Your task to perform on an android device: allow notifications from all sites in the chrome app Image 0: 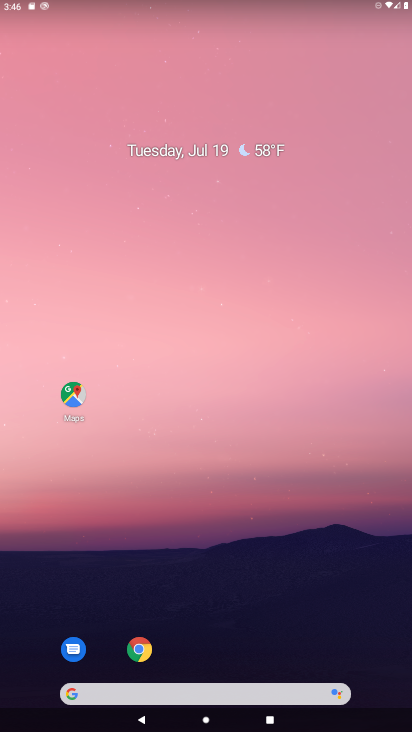
Step 0: drag from (230, 683) to (230, 209)
Your task to perform on an android device: allow notifications from all sites in the chrome app Image 1: 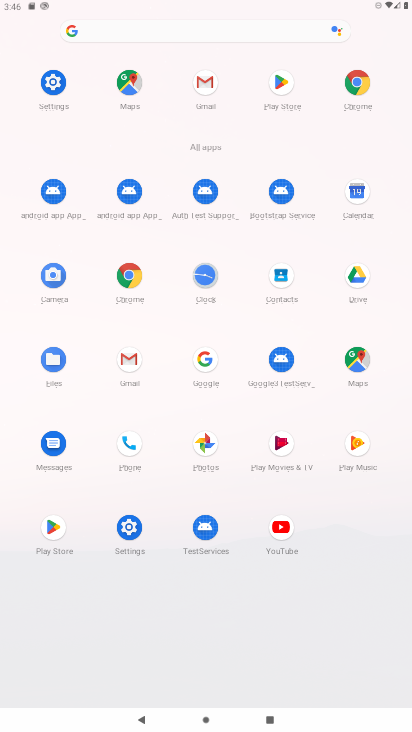
Step 1: click (129, 273)
Your task to perform on an android device: allow notifications from all sites in the chrome app Image 2: 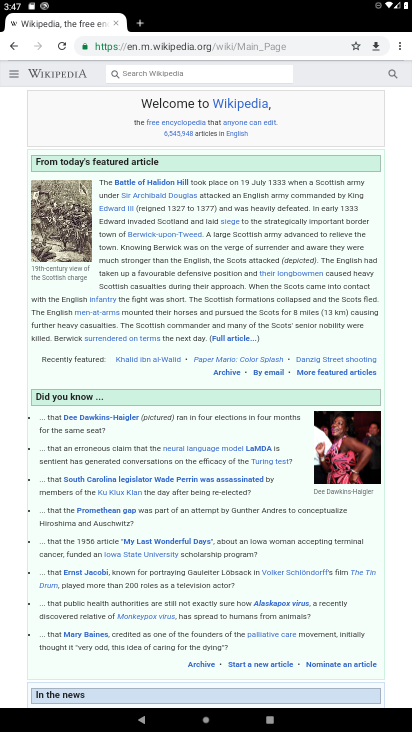
Step 2: click (398, 49)
Your task to perform on an android device: allow notifications from all sites in the chrome app Image 3: 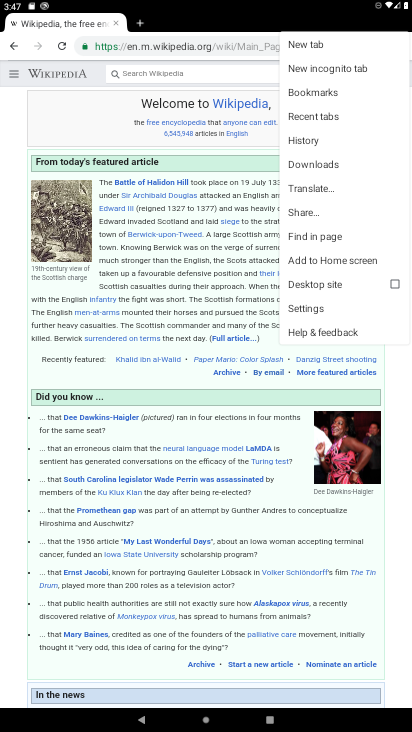
Step 3: click (309, 307)
Your task to perform on an android device: allow notifications from all sites in the chrome app Image 4: 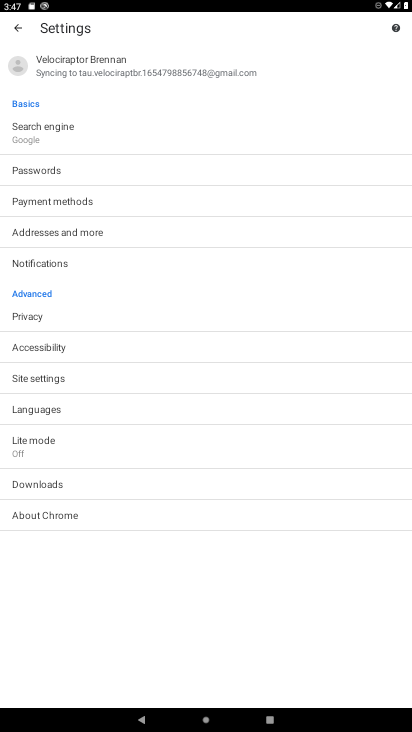
Step 4: click (42, 374)
Your task to perform on an android device: allow notifications from all sites in the chrome app Image 5: 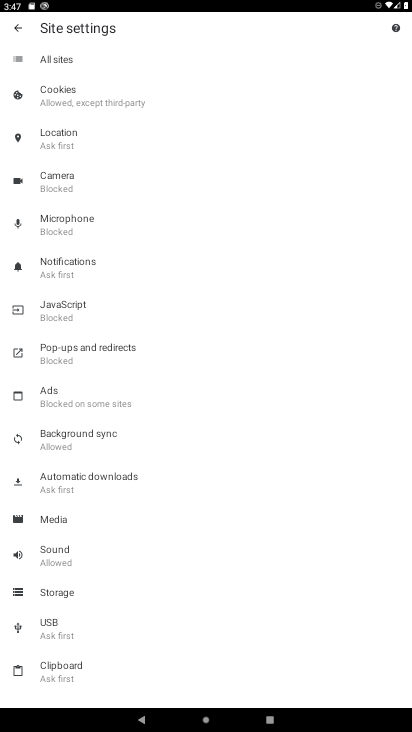
Step 5: click (63, 260)
Your task to perform on an android device: allow notifications from all sites in the chrome app Image 6: 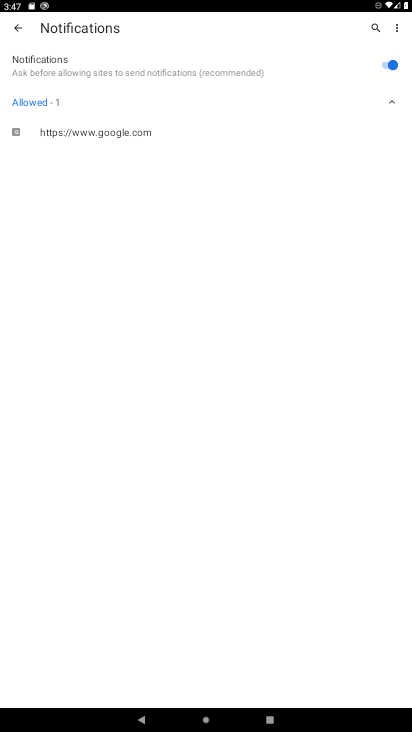
Step 6: task complete